Your task to perform on an android device: Open the map Image 0: 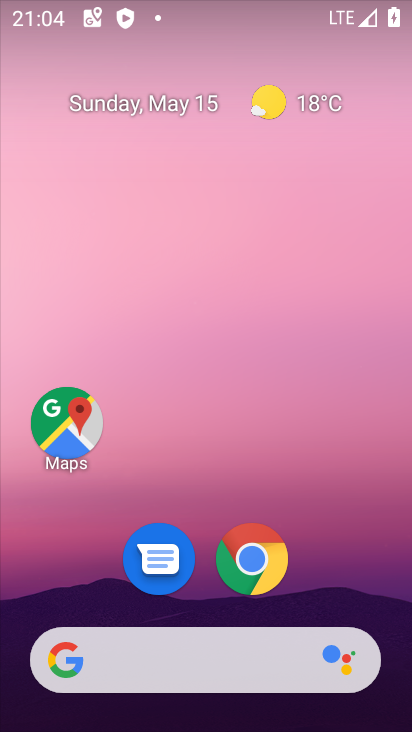
Step 0: click (61, 409)
Your task to perform on an android device: Open the map Image 1: 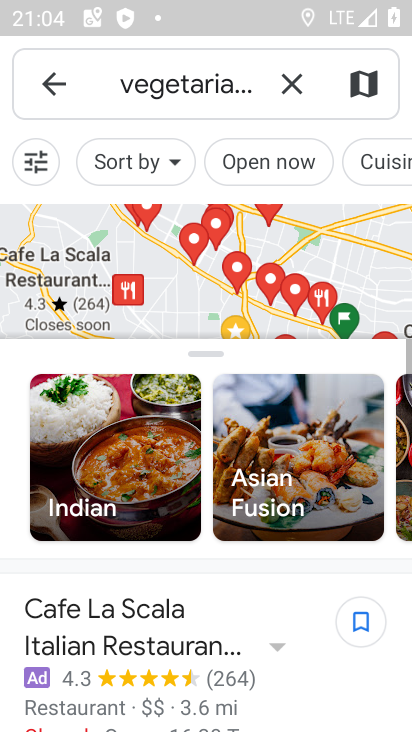
Step 1: task complete